Your task to perform on an android device: turn off airplane mode Image 0: 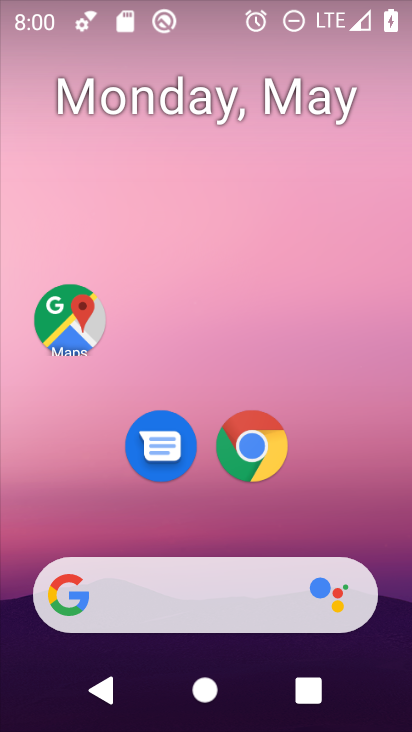
Step 0: drag from (317, 485) to (200, 94)
Your task to perform on an android device: turn off airplane mode Image 1: 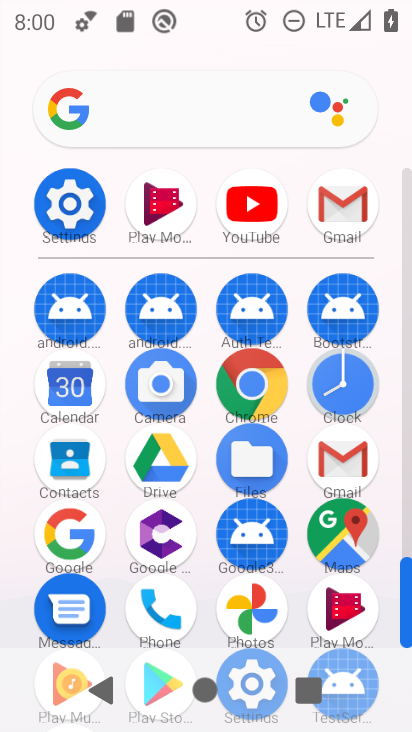
Step 1: click (68, 203)
Your task to perform on an android device: turn off airplane mode Image 2: 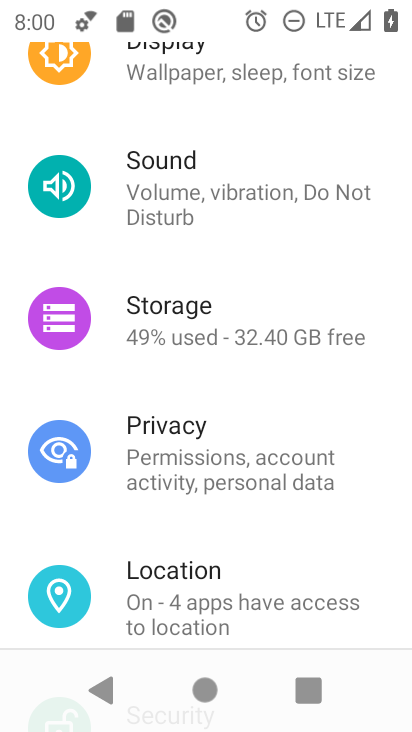
Step 2: drag from (206, 114) to (262, 568)
Your task to perform on an android device: turn off airplane mode Image 3: 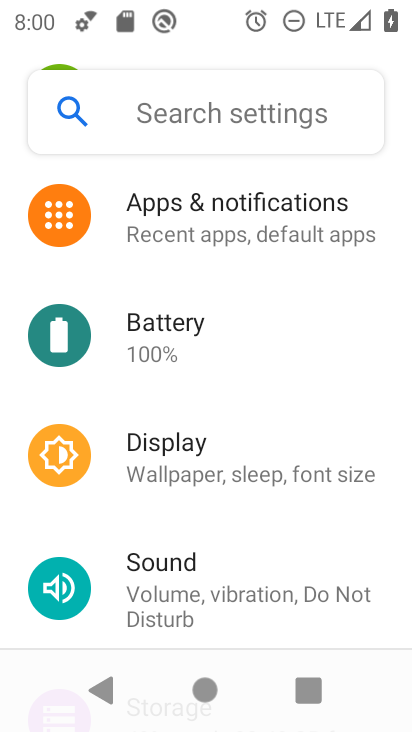
Step 3: drag from (240, 266) to (243, 609)
Your task to perform on an android device: turn off airplane mode Image 4: 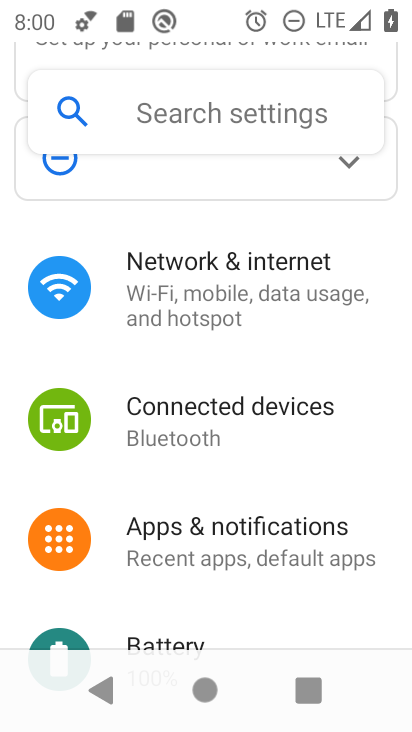
Step 4: click (194, 270)
Your task to perform on an android device: turn off airplane mode Image 5: 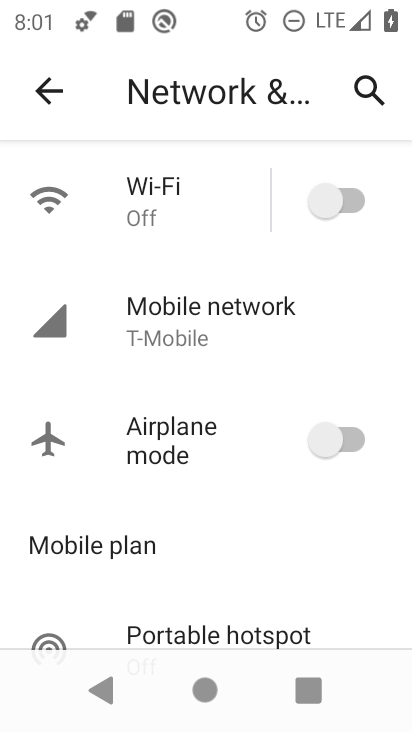
Step 5: task complete